Your task to perform on an android device: turn off notifications in google photos Image 0: 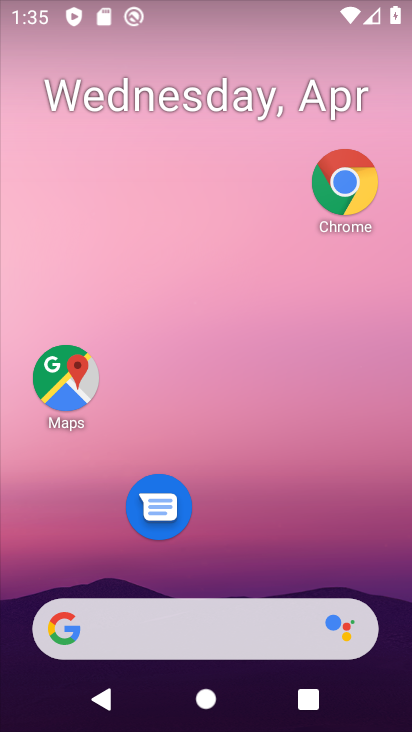
Step 0: drag from (259, 682) to (325, 13)
Your task to perform on an android device: turn off notifications in google photos Image 1: 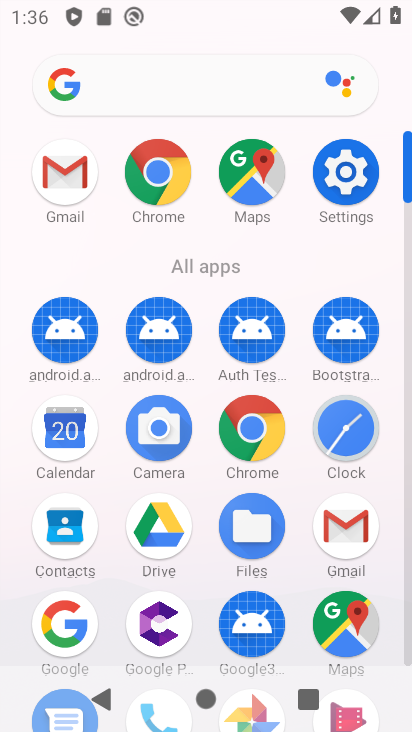
Step 1: drag from (385, 576) to (331, 25)
Your task to perform on an android device: turn off notifications in google photos Image 2: 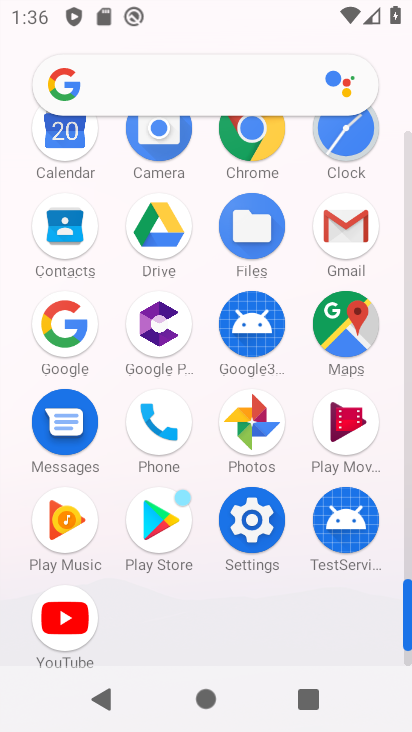
Step 2: click (268, 427)
Your task to perform on an android device: turn off notifications in google photos Image 3: 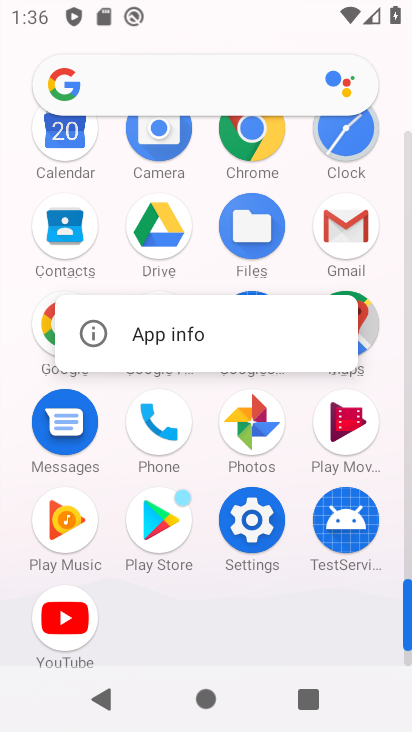
Step 3: click (214, 346)
Your task to perform on an android device: turn off notifications in google photos Image 4: 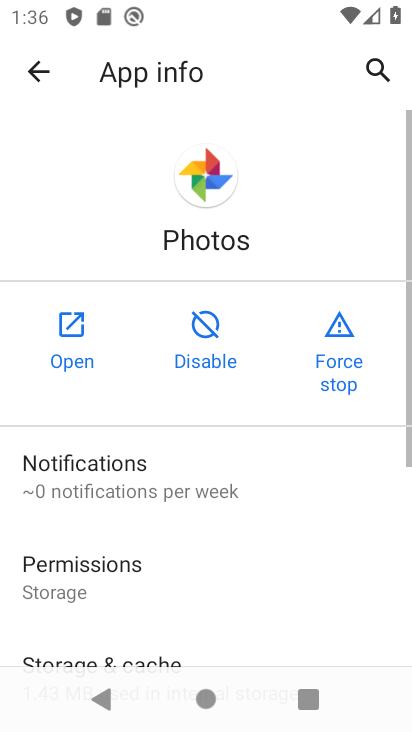
Step 4: click (156, 482)
Your task to perform on an android device: turn off notifications in google photos Image 5: 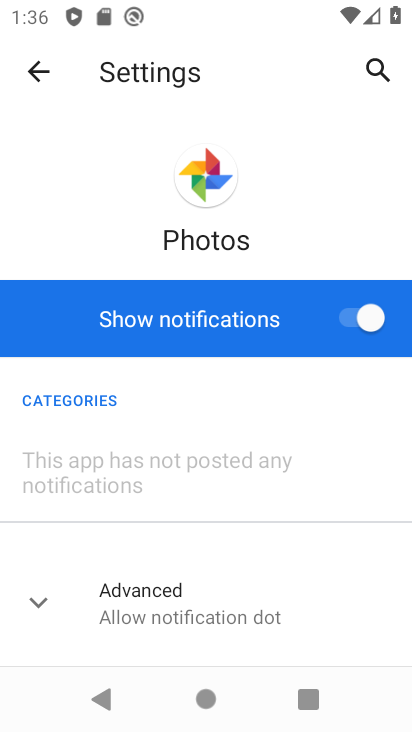
Step 5: click (369, 311)
Your task to perform on an android device: turn off notifications in google photos Image 6: 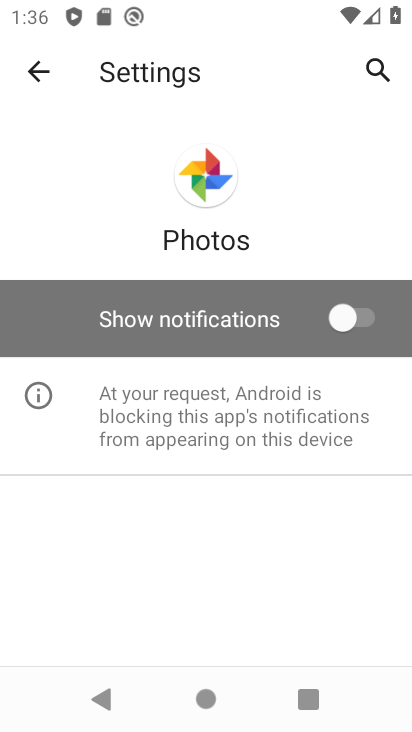
Step 6: task complete